Your task to perform on an android device: Go to CNN.com Image 0: 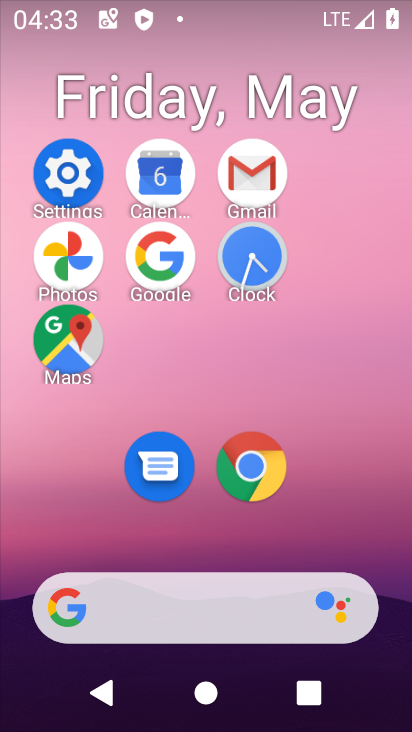
Step 0: click (277, 476)
Your task to perform on an android device: Go to CNN.com Image 1: 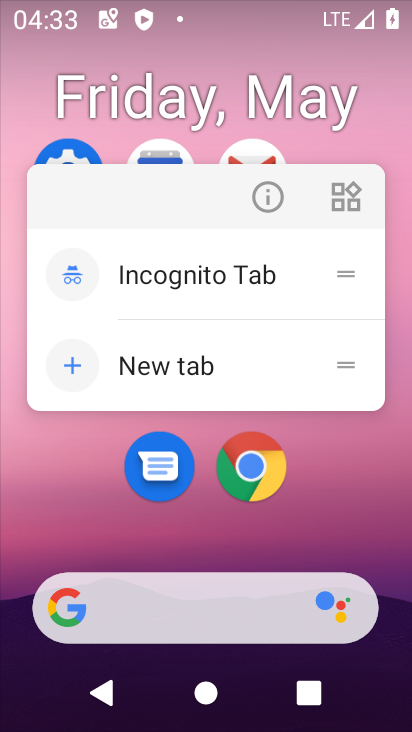
Step 1: click (275, 476)
Your task to perform on an android device: Go to CNN.com Image 2: 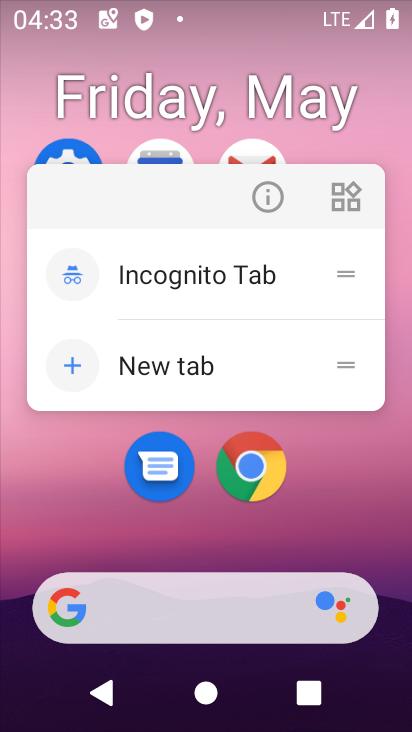
Step 2: click (269, 479)
Your task to perform on an android device: Go to CNN.com Image 3: 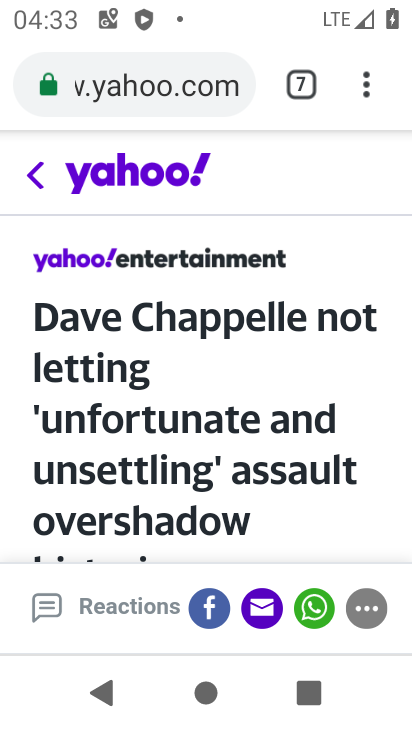
Step 3: click (300, 89)
Your task to perform on an android device: Go to CNN.com Image 4: 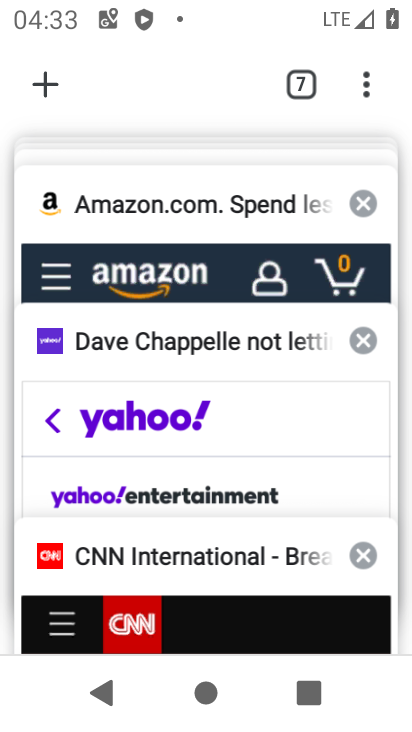
Step 4: drag from (184, 192) to (170, 498)
Your task to perform on an android device: Go to CNN.com Image 5: 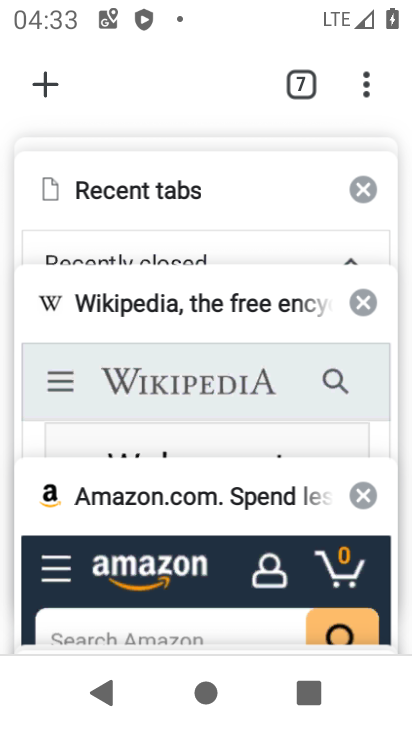
Step 5: drag from (178, 201) to (152, 608)
Your task to perform on an android device: Go to CNN.com Image 6: 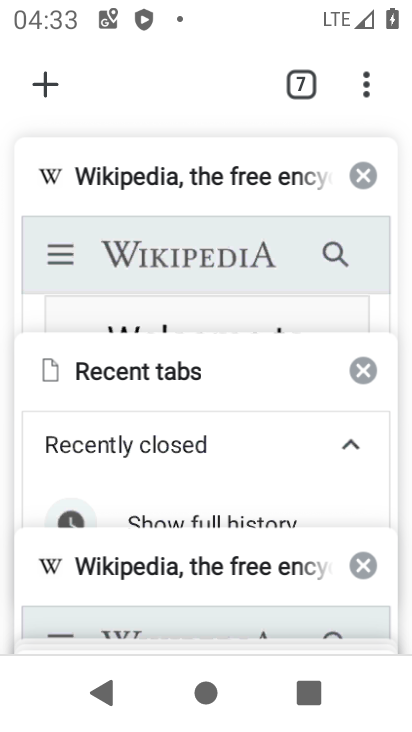
Step 6: drag from (169, 218) to (177, 638)
Your task to perform on an android device: Go to CNN.com Image 7: 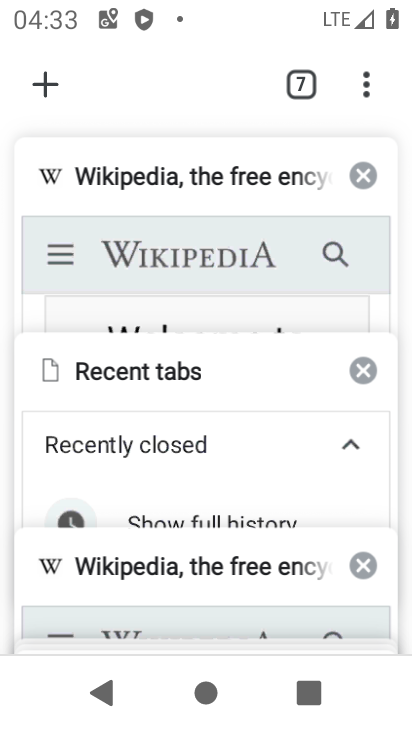
Step 7: click (54, 80)
Your task to perform on an android device: Go to CNN.com Image 8: 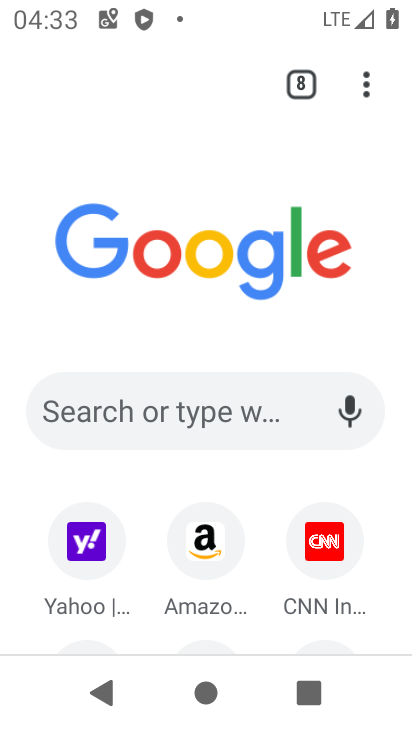
Step 8: drag from (259, 531) to (247, 306)
Your task to perform on an android device: Go to CNN.com Image 9: 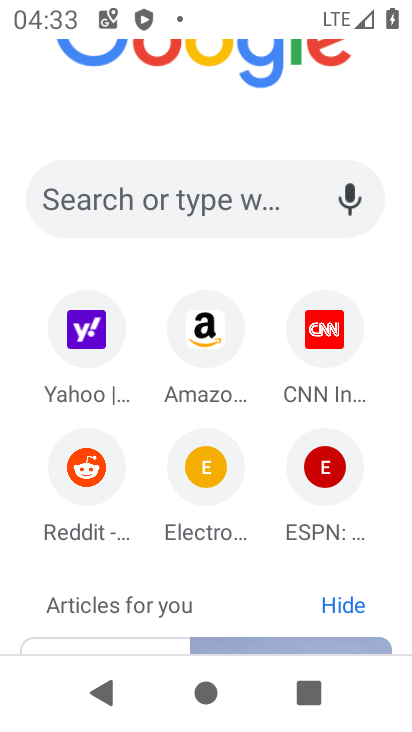
Step 9: click (314, 311)
Your task to perform on an android device: Go to CNN.com Image 10: 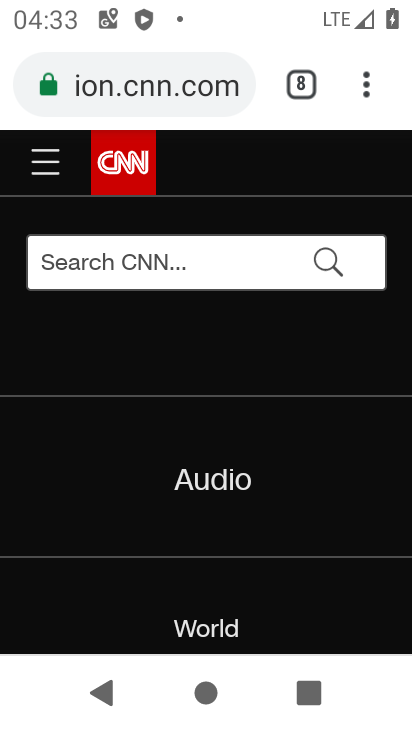
Step 10: task complete